Your task to perform on an android device: Open display settings Image 0: 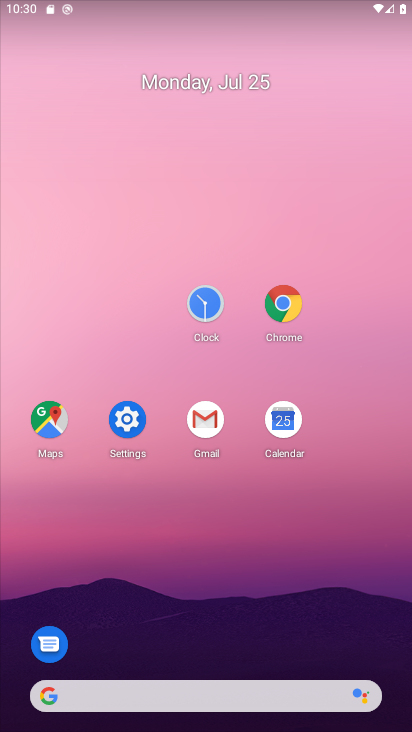
Step 0: click (135, 414)
Your task to perform on an android device: Open display settings Image 1: 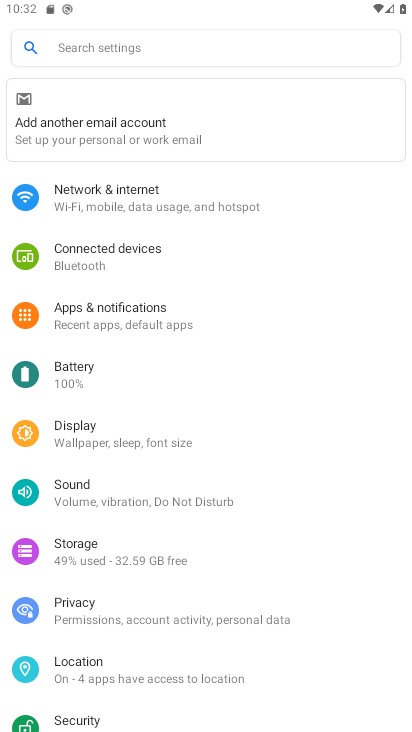
Step 1: click (98, 441)
Your task to perform on an android device: Open display settings Image 2: 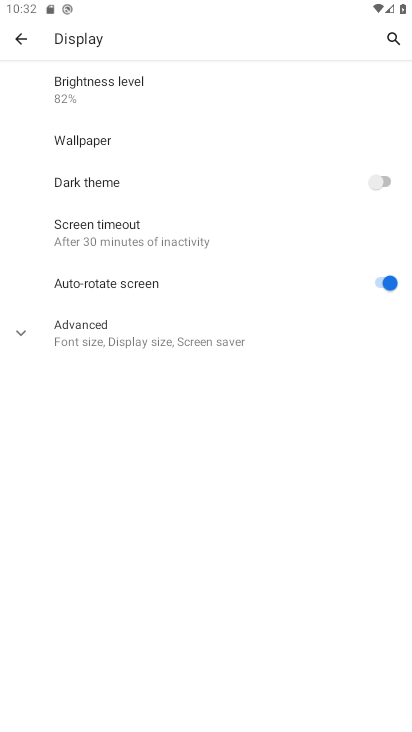
Step 2: task complete